Your task to perform on an android device: Open location settings Image 0: 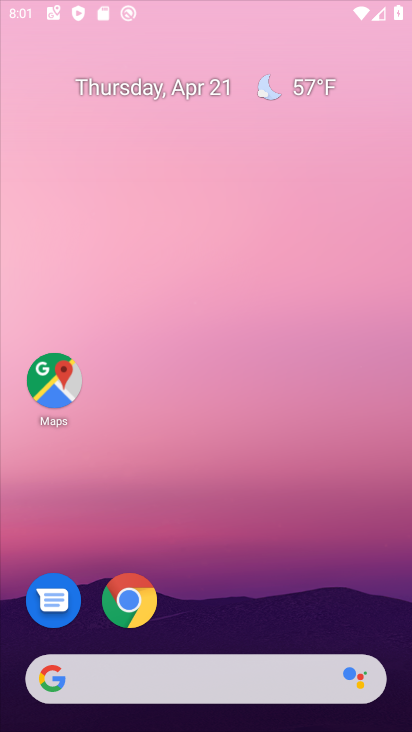
Step 0: drag from (367, 626) to (236, 170)
Your task to perform on an android device: Open location settings Image 1: 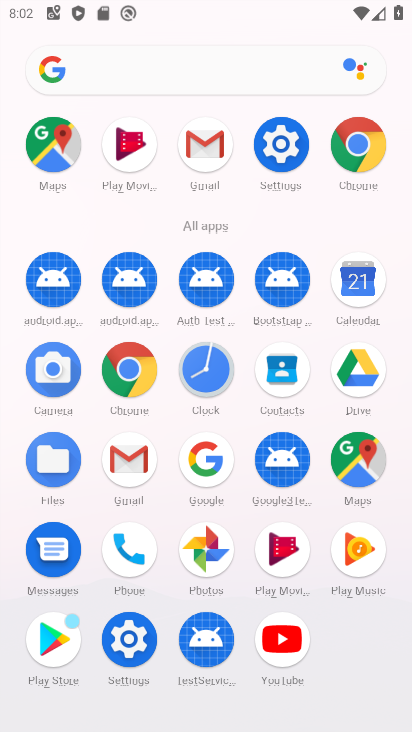
Step 1: click (283, 163)
Your task to perform on an android device: Open location settings Image 2: 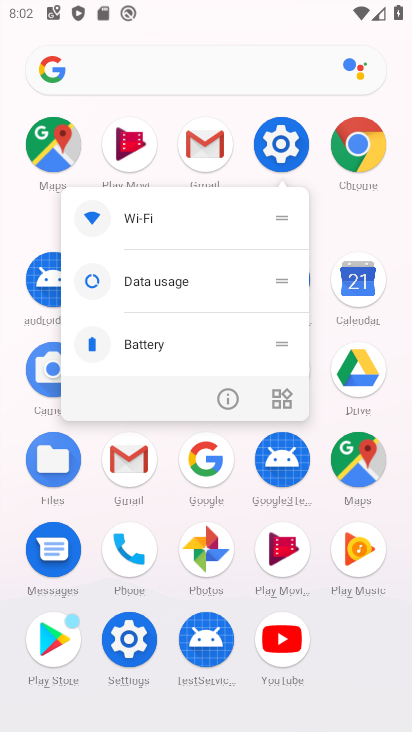
Step 2: click (282, 158)
Your task to perform on an android device: Open location settings Image 3: 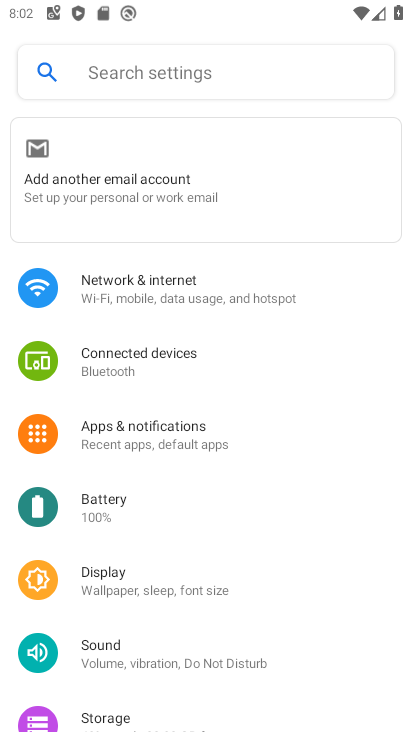
Step 3: drag from (148, 637) to (186, 281)
Your task to perform on an android device: Open location settings Image 4: 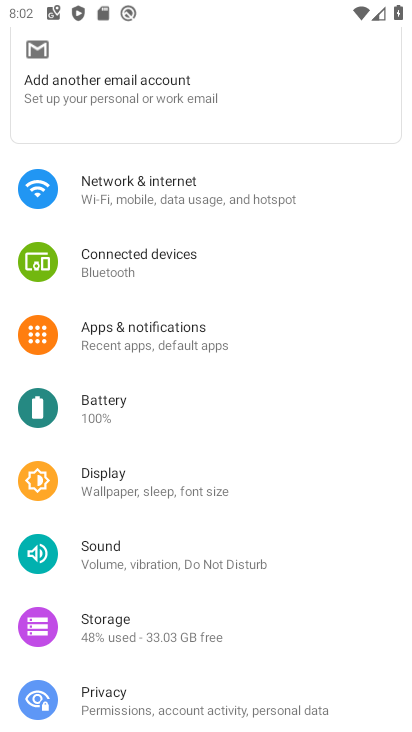
Step 4: drag from (168, 674) to (171, 356)
Your task to perform on an android device: Open location settings Image 5: 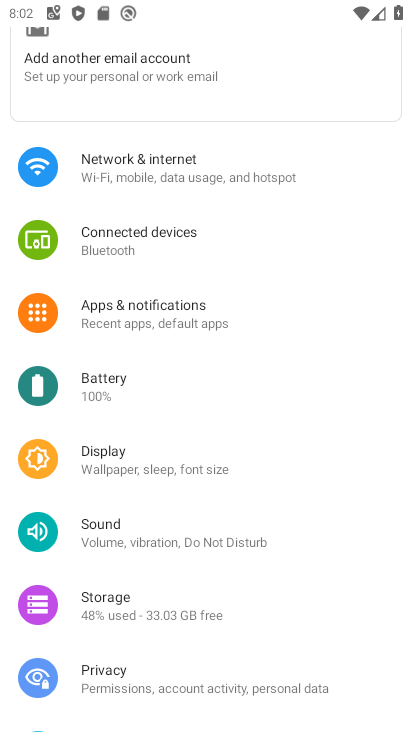
Step 5: drag from (142, 658) to (191, 342)
Your task to perform on an android device: Open location settings Image 6: 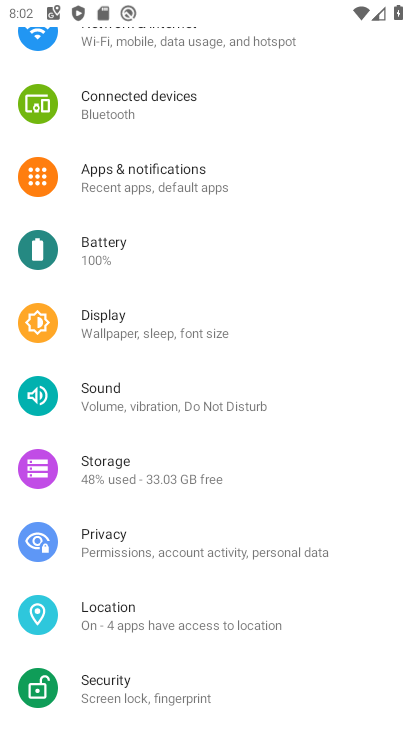
Step 6: click (139, 613)
Your task to perform on an android device: Open location settings Image 7: 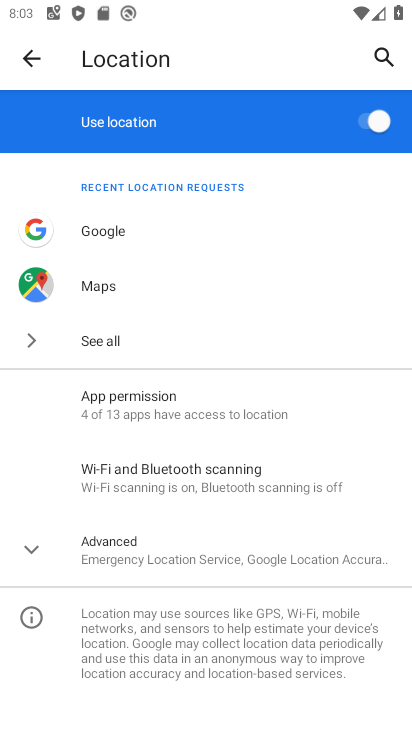
Step 7: task complete